Your task to perform on an android device: toggle data saver in the chrome app Image 0: 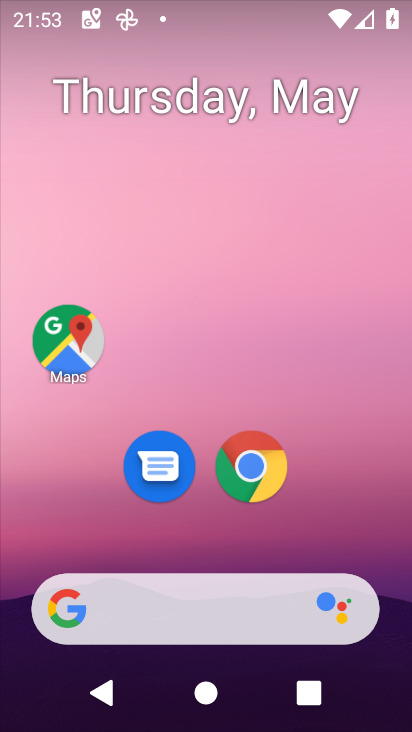
Step 0: click (267, 481)
Your task to perform on an android device: toggle data saver in the chrome app Image 1: 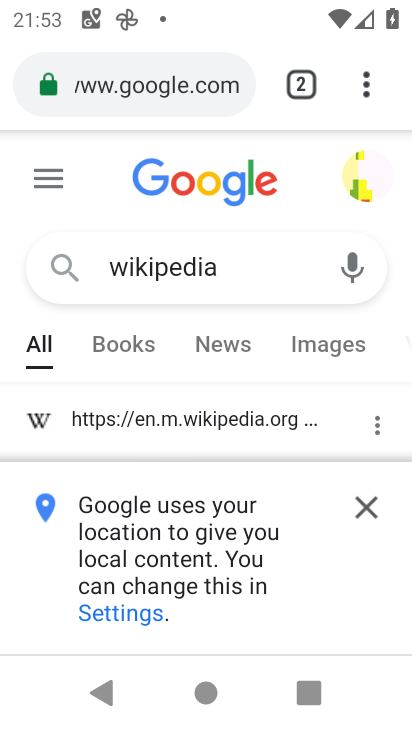
Step 1: click (361, 72)
Your task to perform on an android device: toggle data saver in the chrome app Image 2: 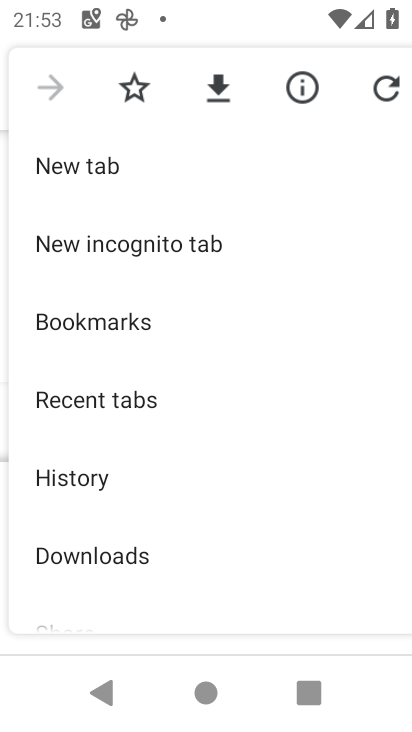
Step 2: drag from (204, 485) to (215, 234)
Your task to perform on an android device: toggle data saver in the chrome app Image 3: 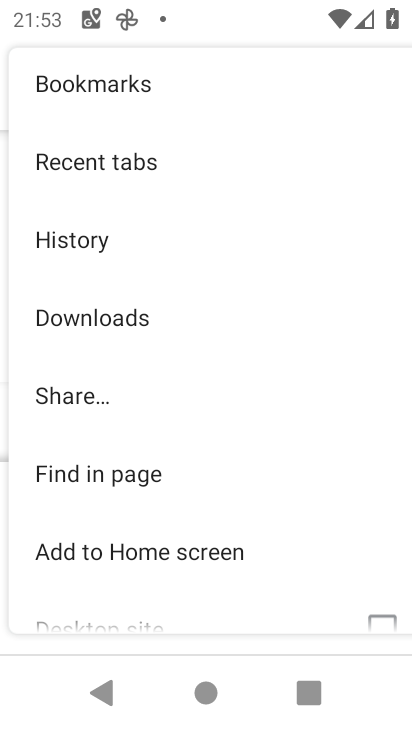
Step 3: drag from (194, 561) to (205, 217)
Your task to perform on an android device: toggle data saver in the chrome app Image 4: 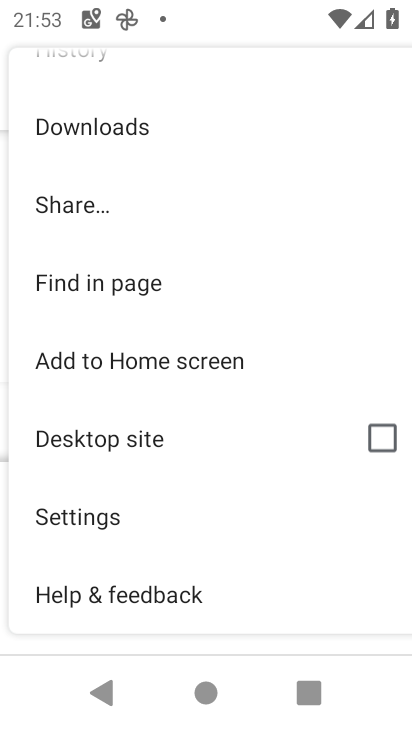
Step 4: click (189, 513)
Your task to perform on an android device: toggle data saver in the chrome app Image 5: 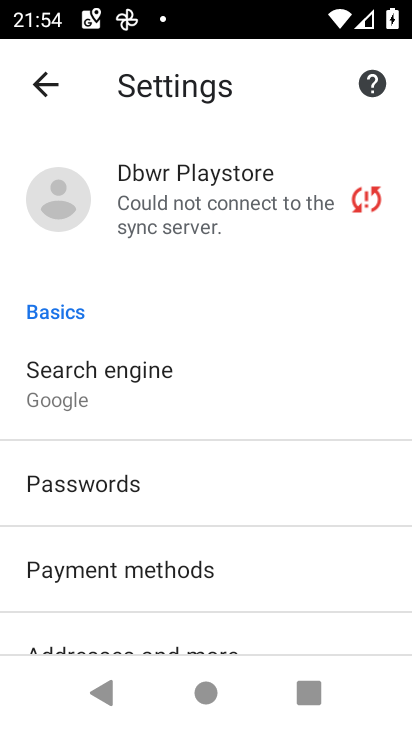
Step 5: drag from (214, 536) to (222, 362)
Your task to perform on an android device: toggle data saver in the chrome app Image 6: 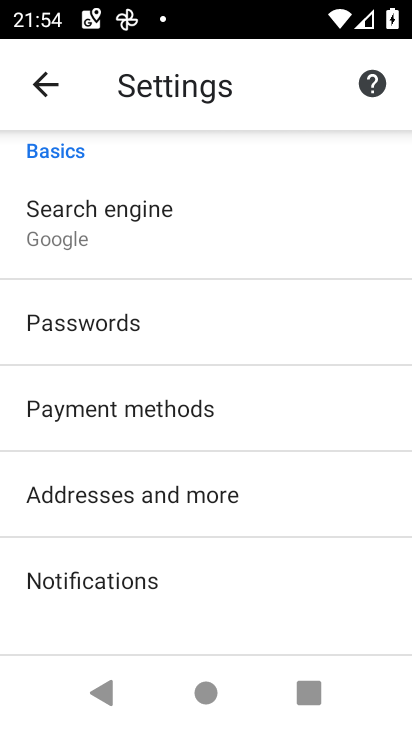
Step 6: drag from (184, 524) to (197, 276)
Your task to perform on an android device: toggle data saver in the chrome app Image 7: 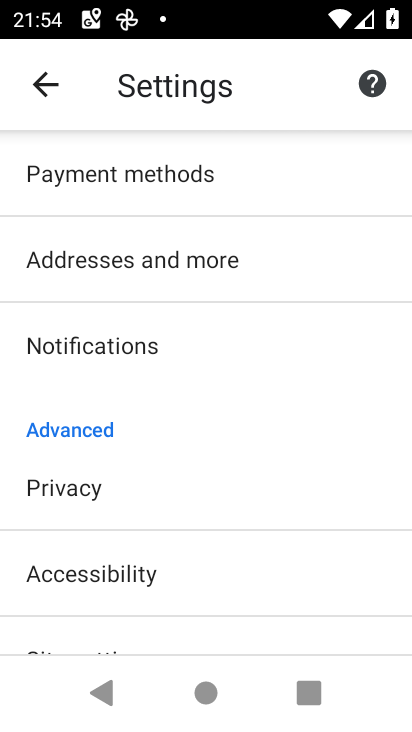
Step 7: drag from (185, 534) to (204, 149)
Your task to perform on an android device: toggle data saver in the chrome app Image 8: 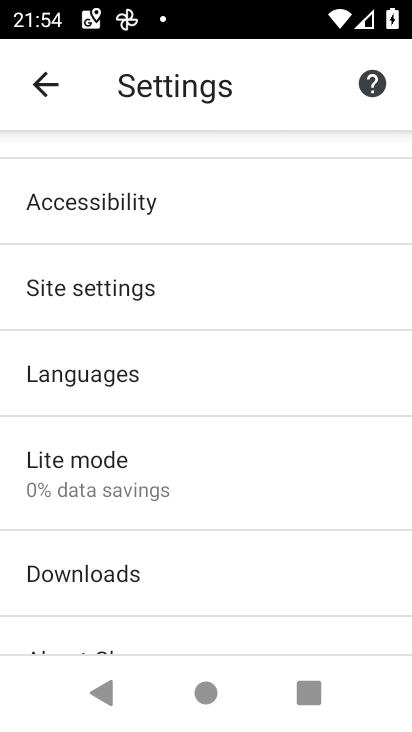
Step 8: click (182, 500)
Your task to perform on an android device: toggle data saver in the chrome app Image 9: 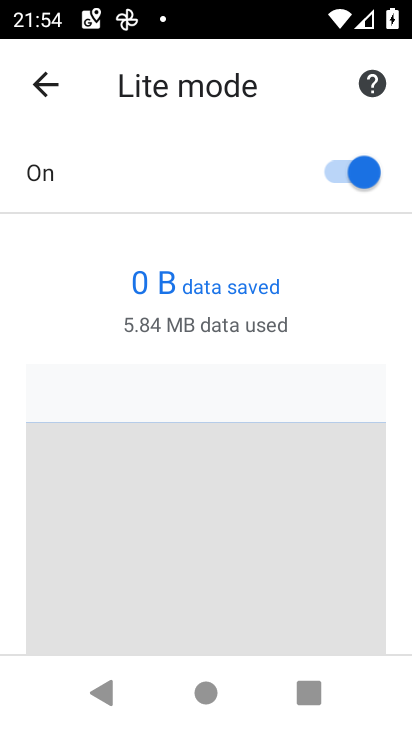
Step 9: click (353, 183)
Your task to perform on an android device: toggle data saver in the chrome app Image 10: 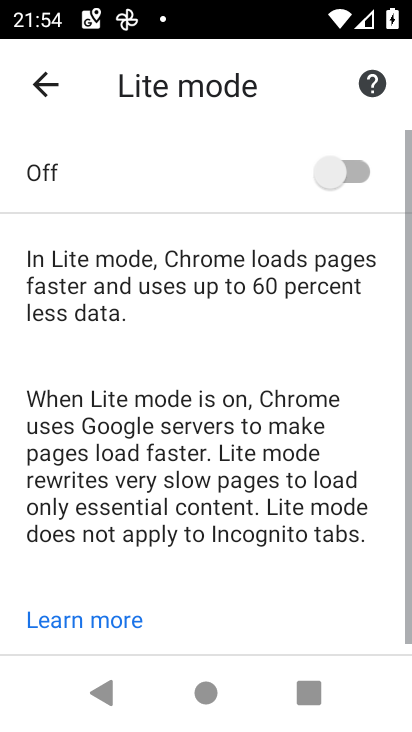
Step 10: task complete